Your task to perform on an android device: Add "corsair k70" to the cart on ebay.com, then select checkout. Image 0: 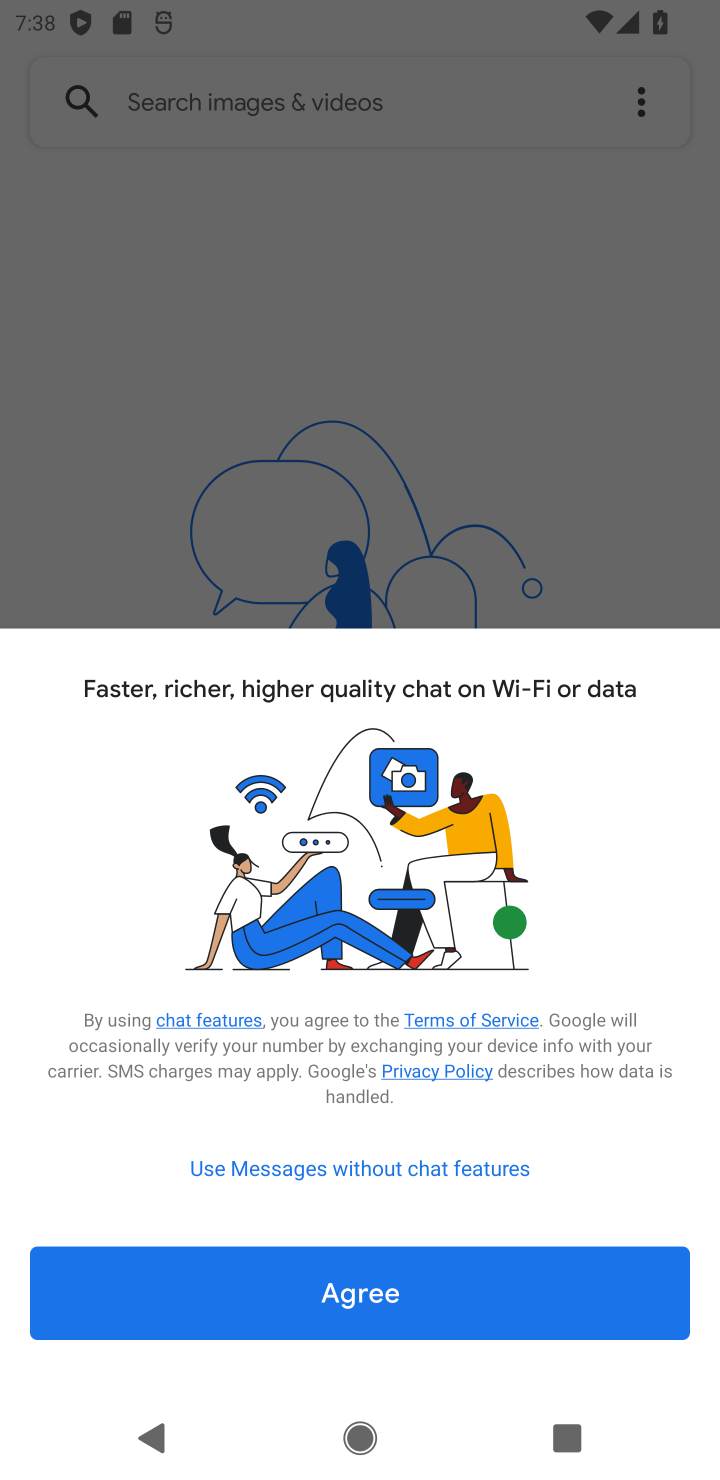
Step 0: press home button
Your task to perform on an android device: Add "corsair k70" to the cart on ebay.com, then select checkout. Image 1: 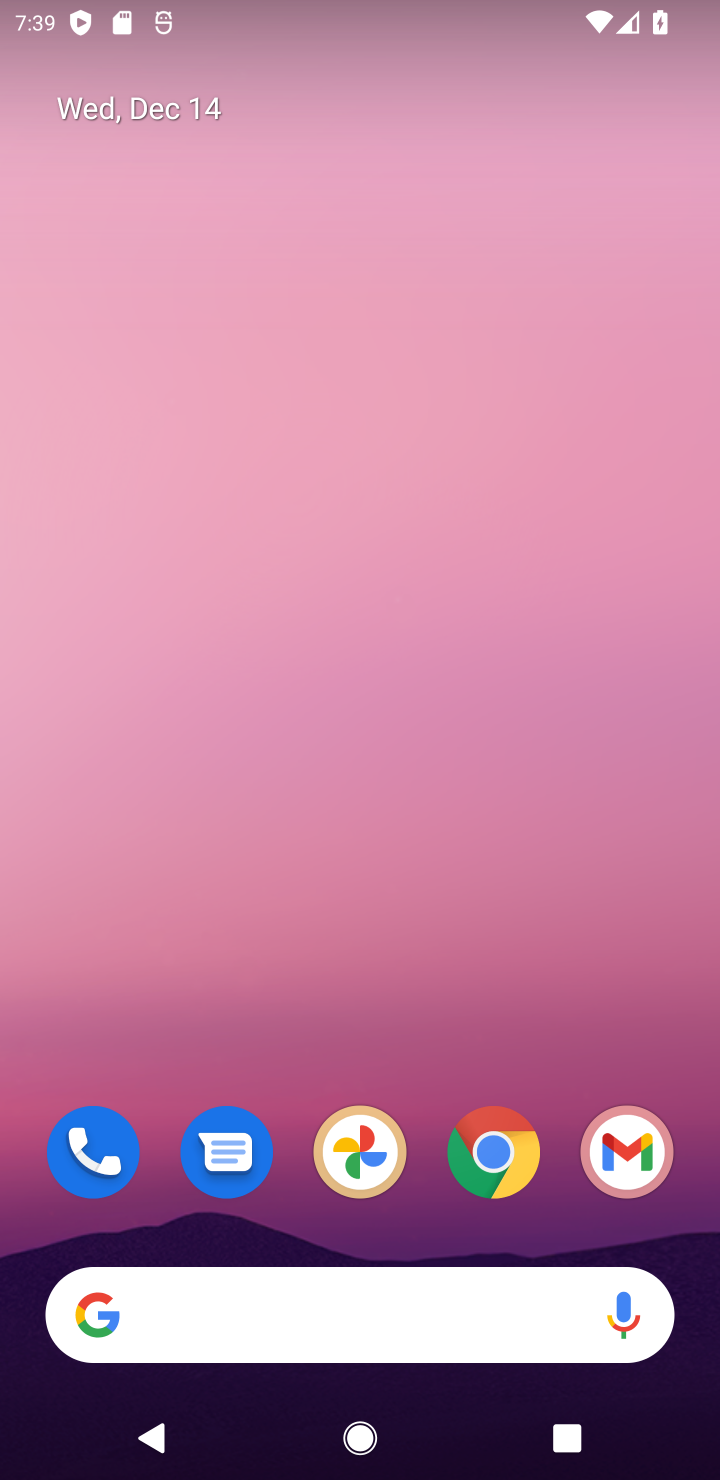
Step 1: click (489, 1164)
Your task to perform on an android device: Add "corsair k70" to the cart on ebay.com, then select checkout. Image 2: 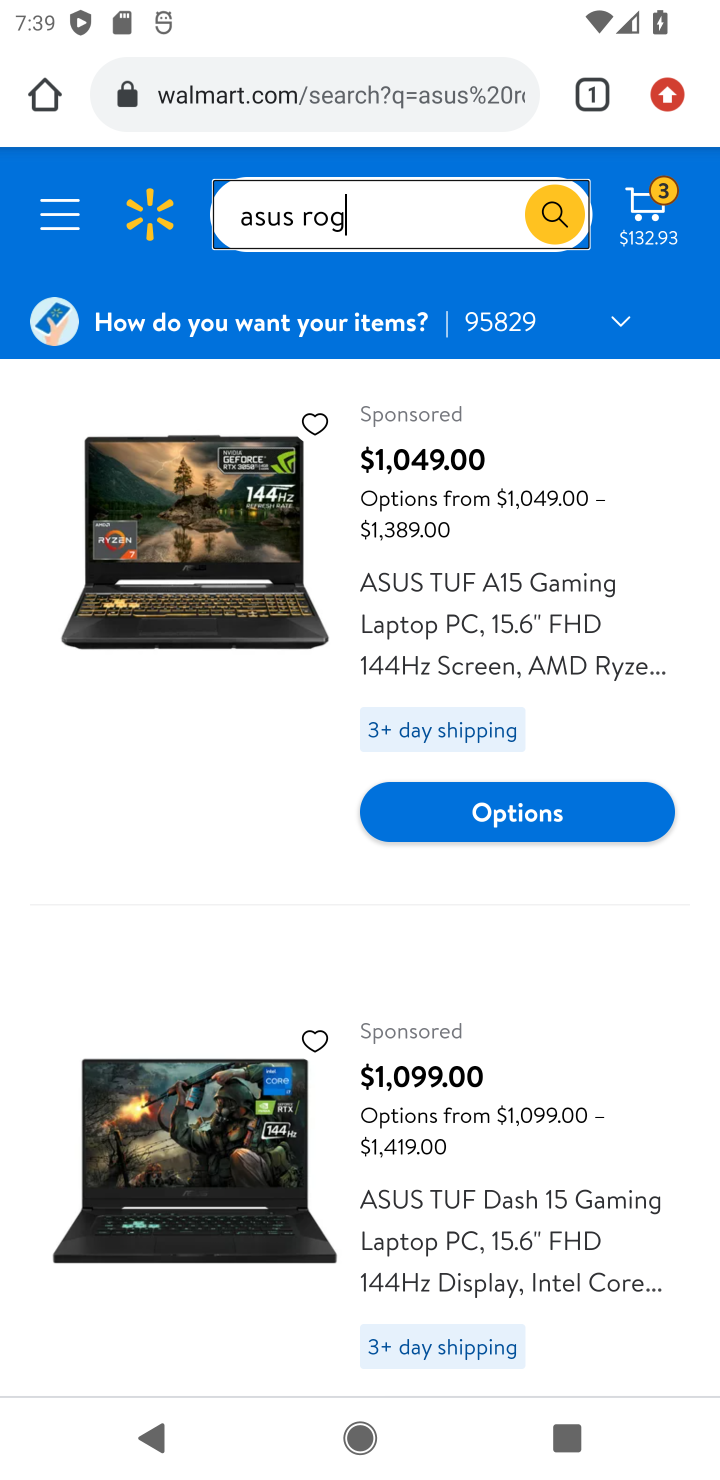
Step 2: click (244, 103)
Your task to perform on an android device: Add "corsair k70" to the cart on ebay.com, then select checkout. Image 3: 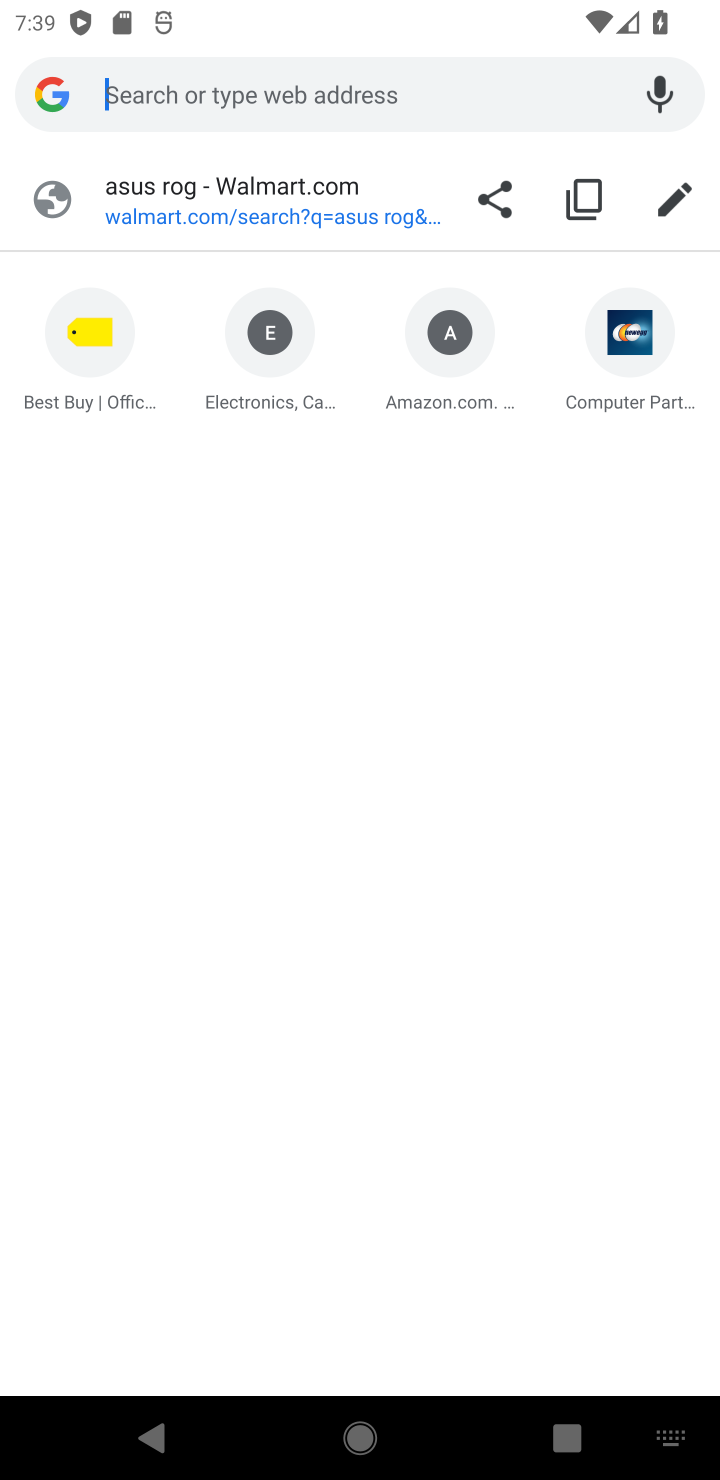
Step 3: type "ebay.com"
Your task to perform on an android device: Add "corsair k70" to the cart on ebay.com, then select checkout. Image 4: 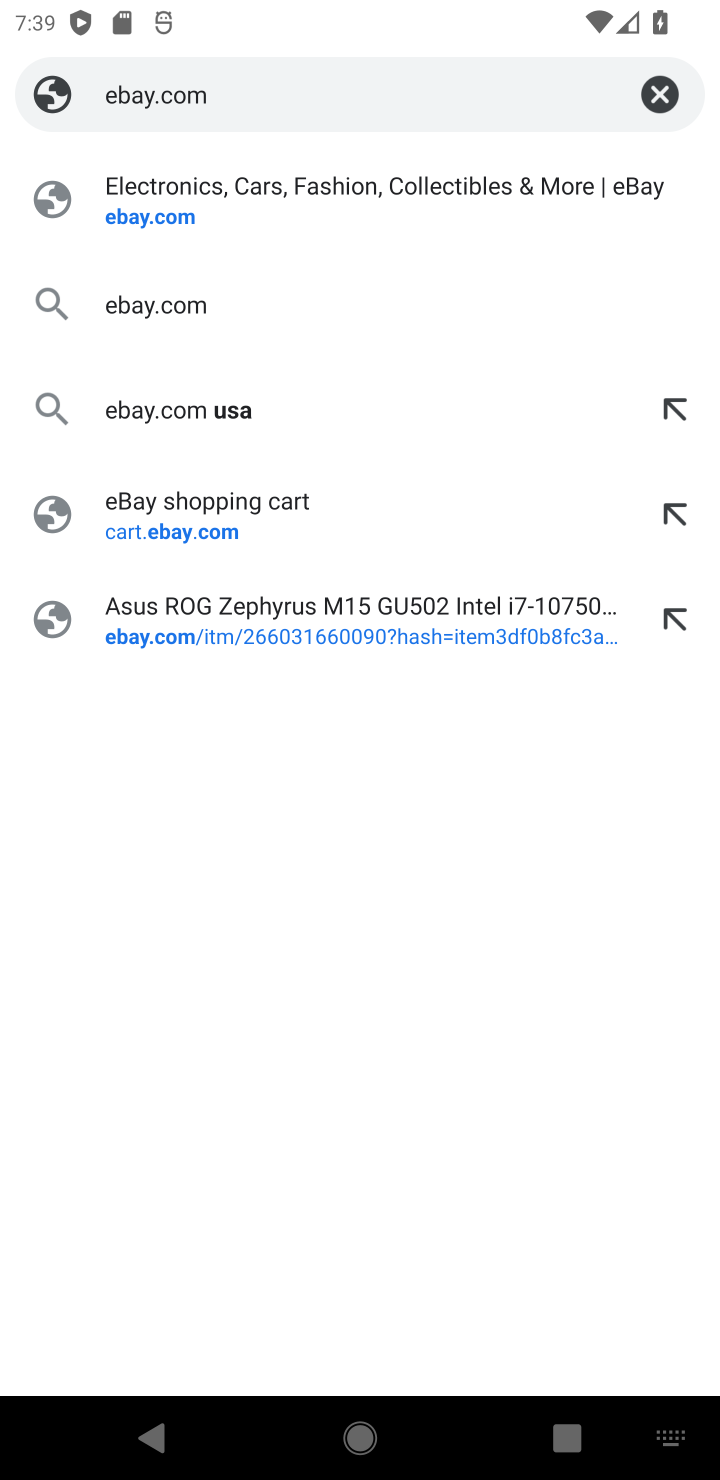
Step 4: click (144, 211)
Your task to perform on an android device: Add "corsair k70" to the cart on ebay.com, then select checkout. Image 5: 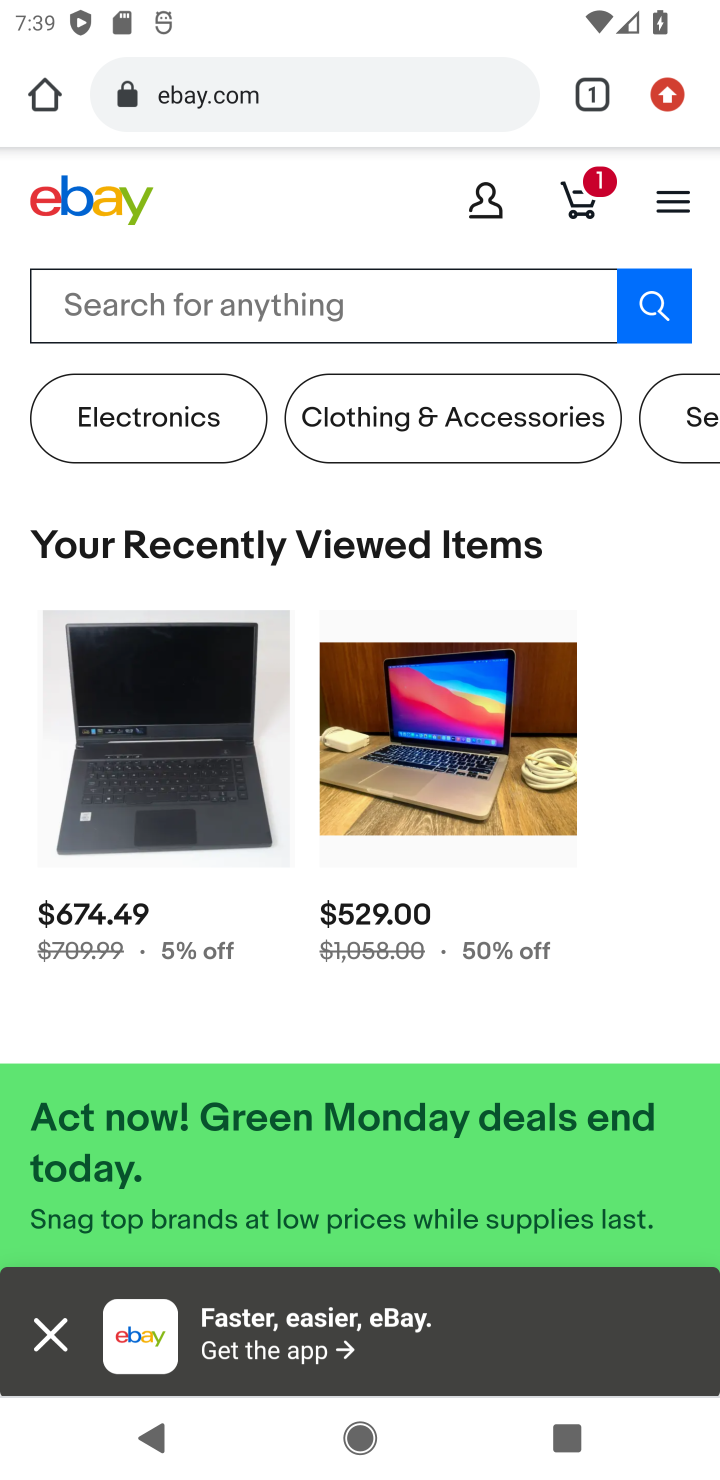
Step 5: click (155, 316)
Your task to perform on an android device: Add "corsair k70" to the cart on ebay.com, then select checkout. Image 6: 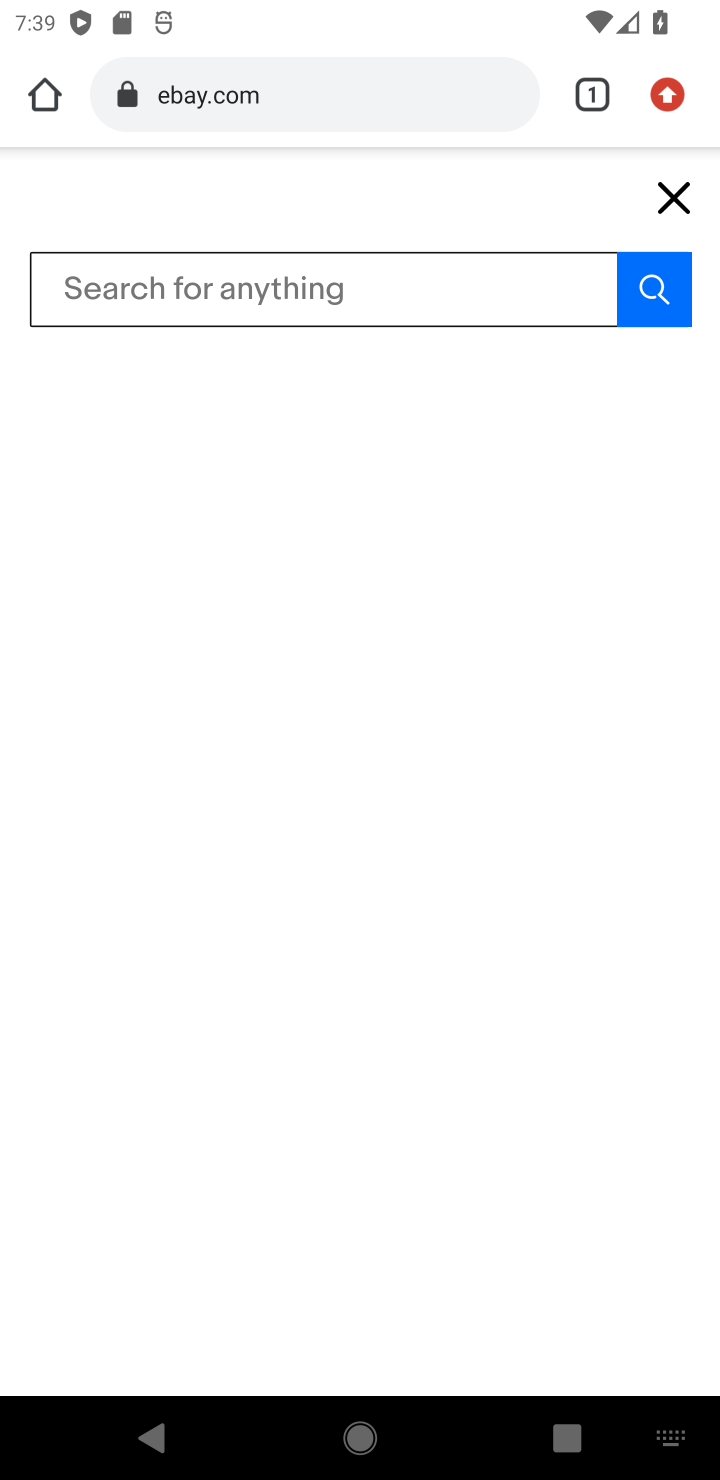
Step 6: type "corsair k70"
Your task to perform on an android device: Add "corsair k70" to the cart on ebay.com, then select checkout. Image 7: 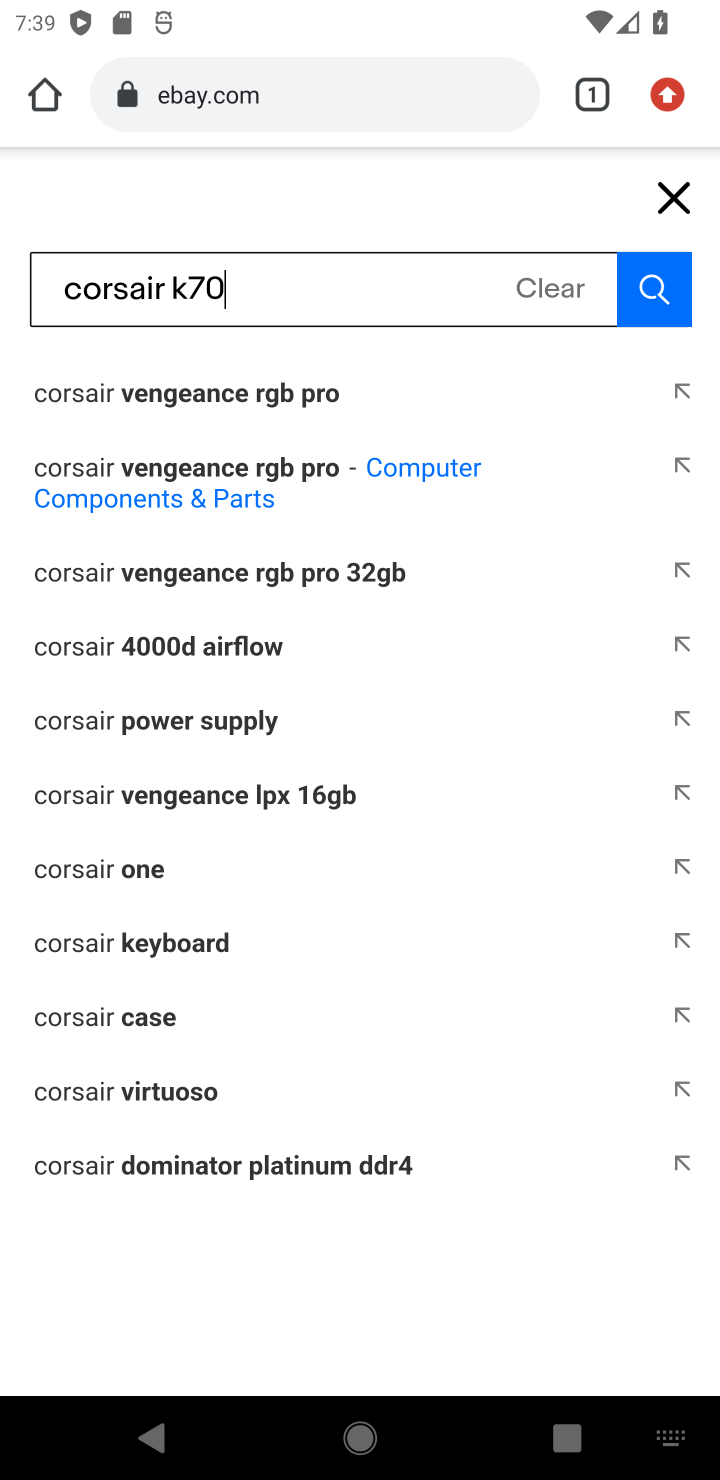
Step 7: click (652, 290)
Your task to perform on an android device: Add "corsair k70" to the cart on ebay.com, then select checkout. Image 8: 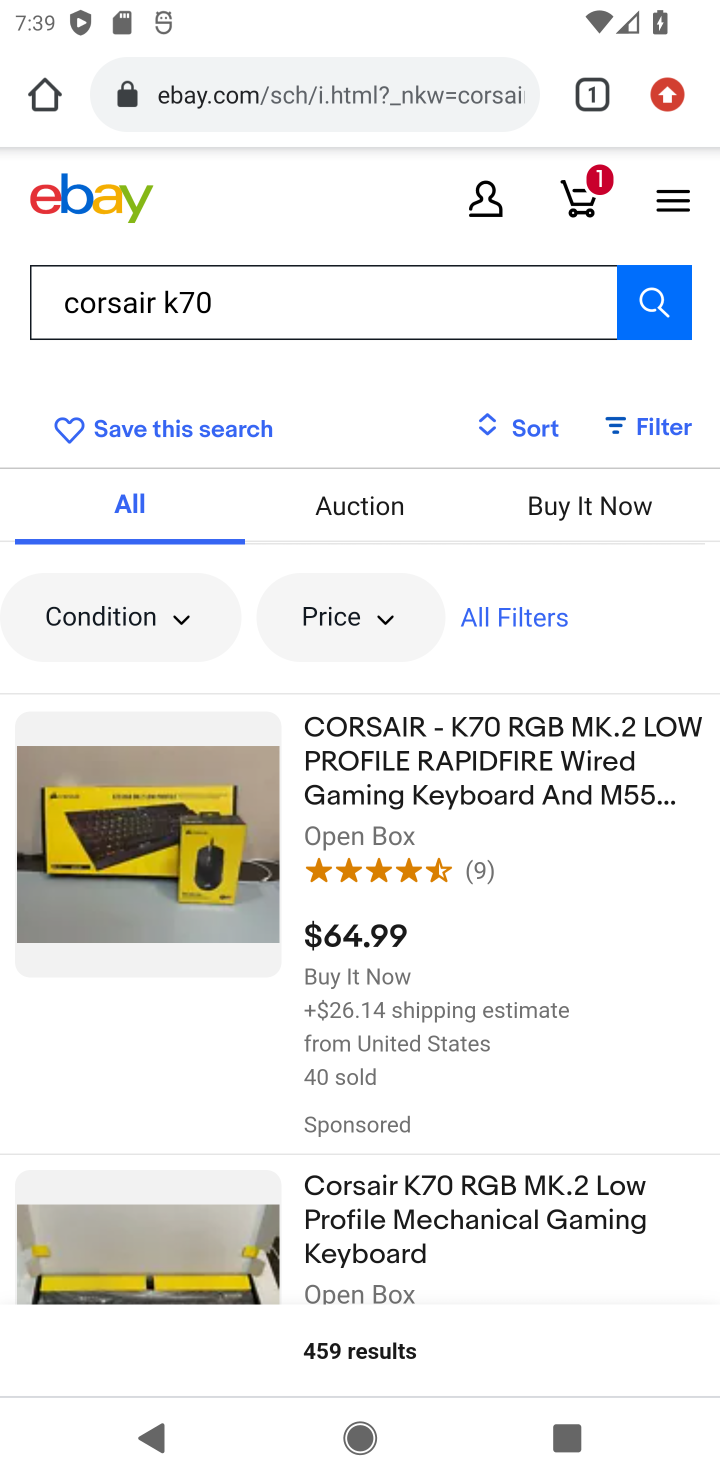
Step 8: click (428, 787)
Your task to perform on an android device: Add "corsair k70" to the cart on ebay.com, then select checkout. Image 9: 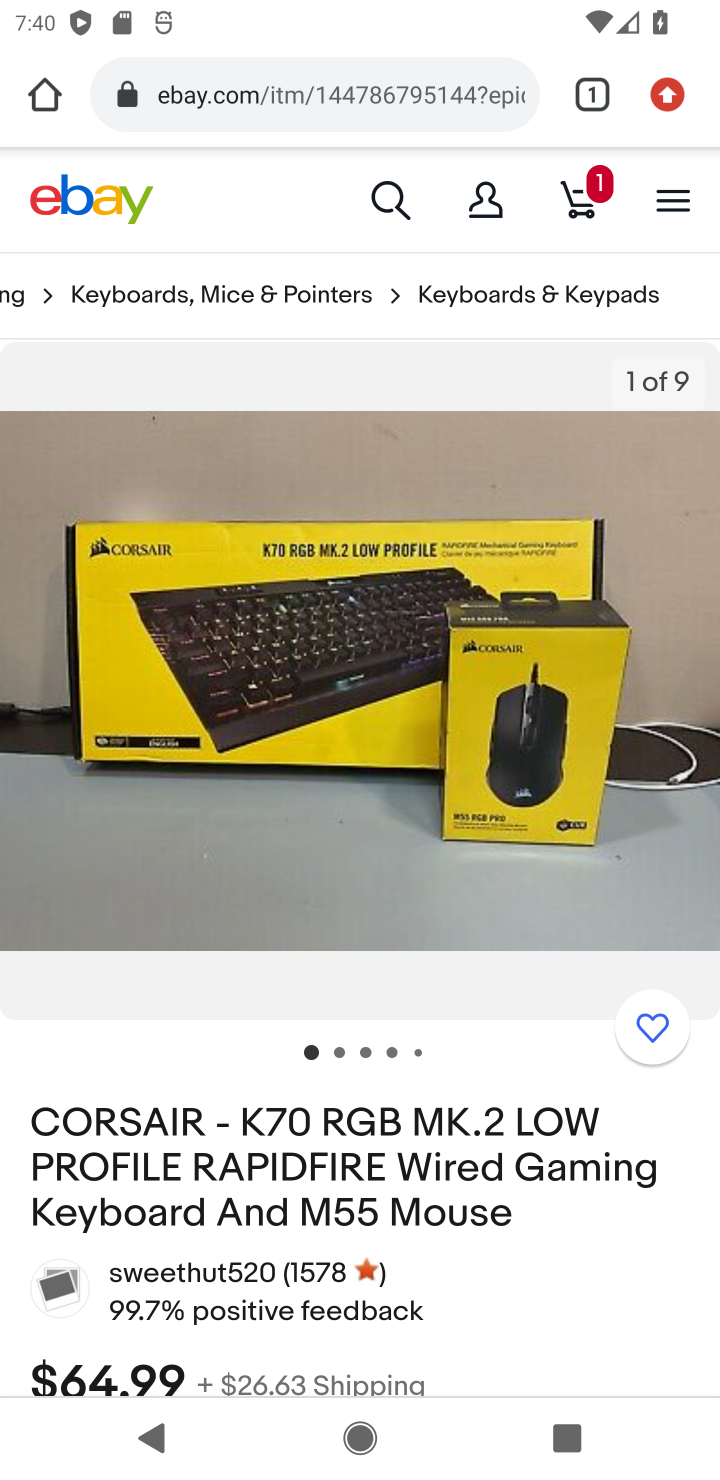
Step 9: drag from (342, 1125) to (361, 543)
Your task to perform on an android device: Add "corsair k70" to the cart on ebay.com, then select checkout. Image 10: 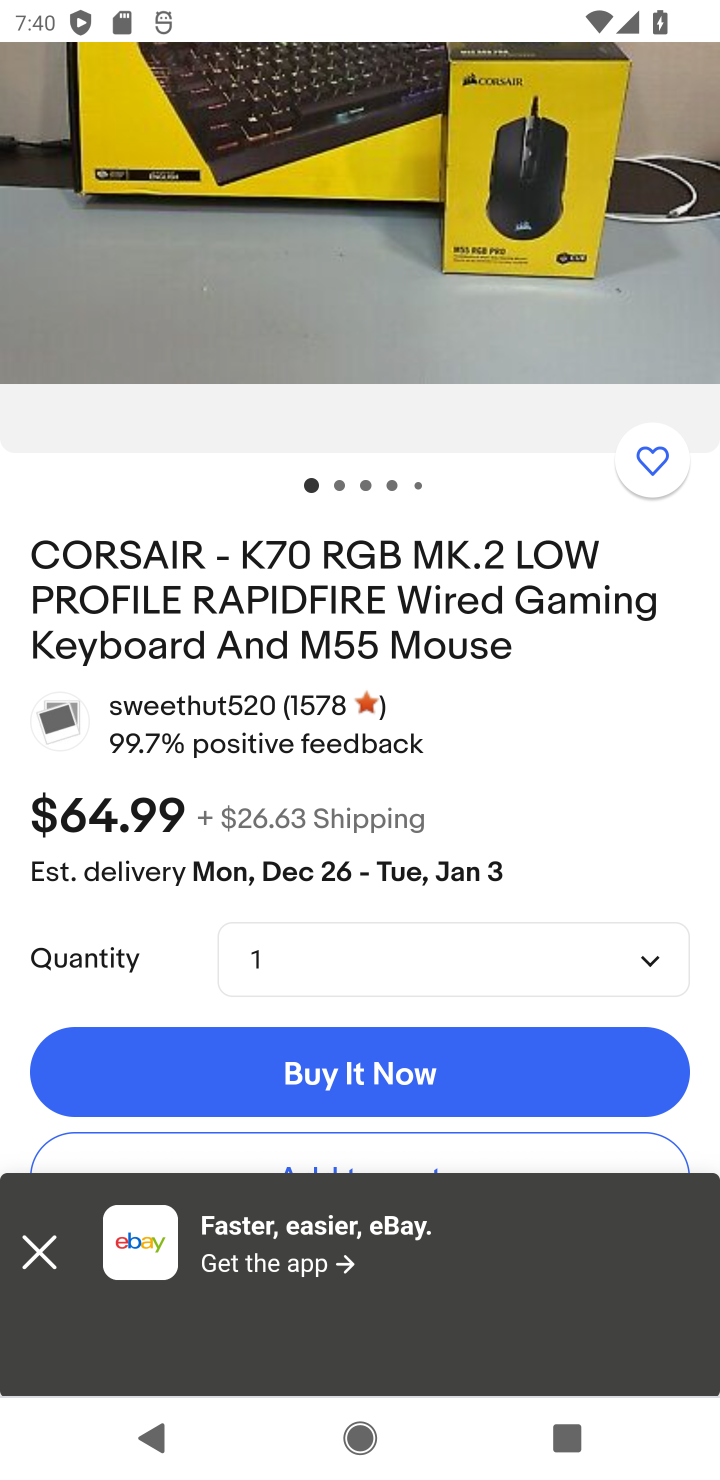
Step 10: click (41, 1254)
Your task to perform on an android device: Add "corsair k70" to the cart on ebay.com, then select checkout. Image 11: 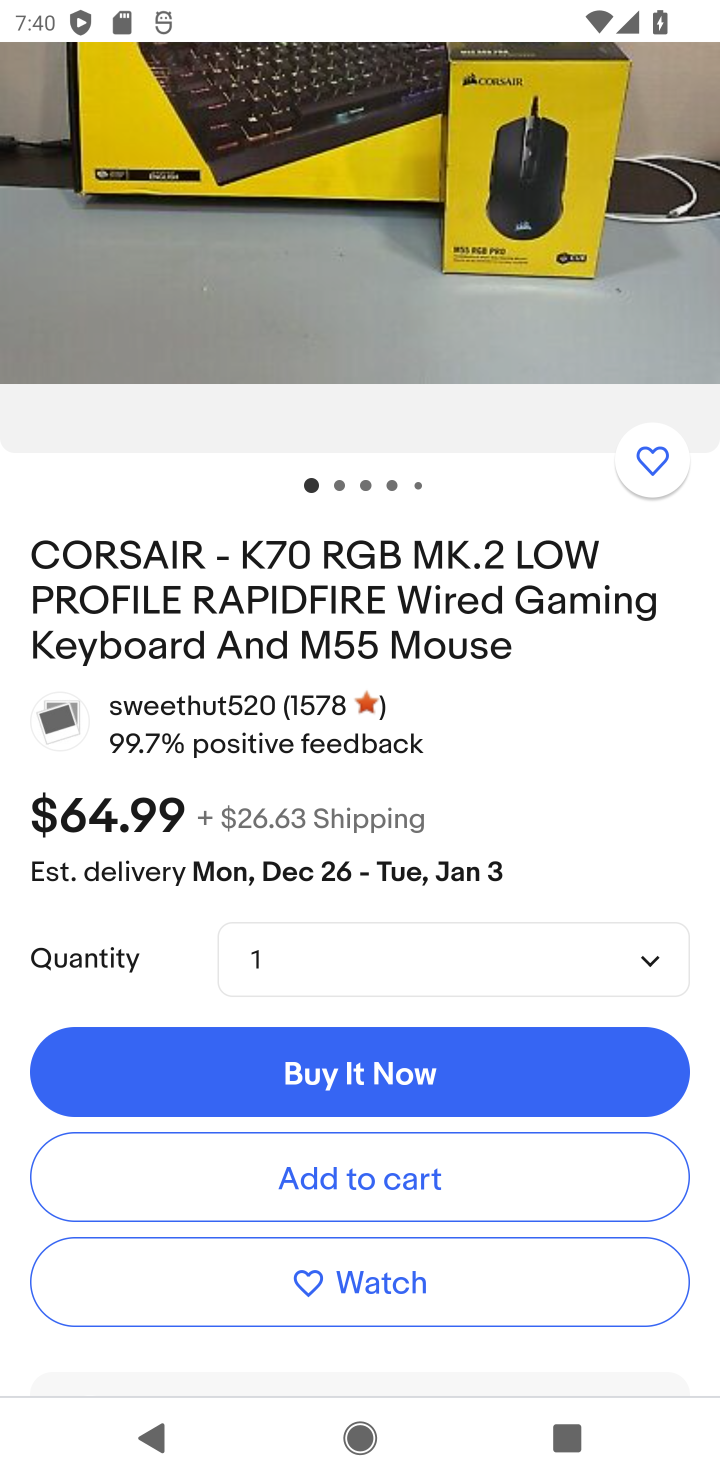
Step 11: click (416, 1189)
Your task to perform on an android device: Add "corsair k70" to the cart on ebay.com, then select checkout. Image 12: 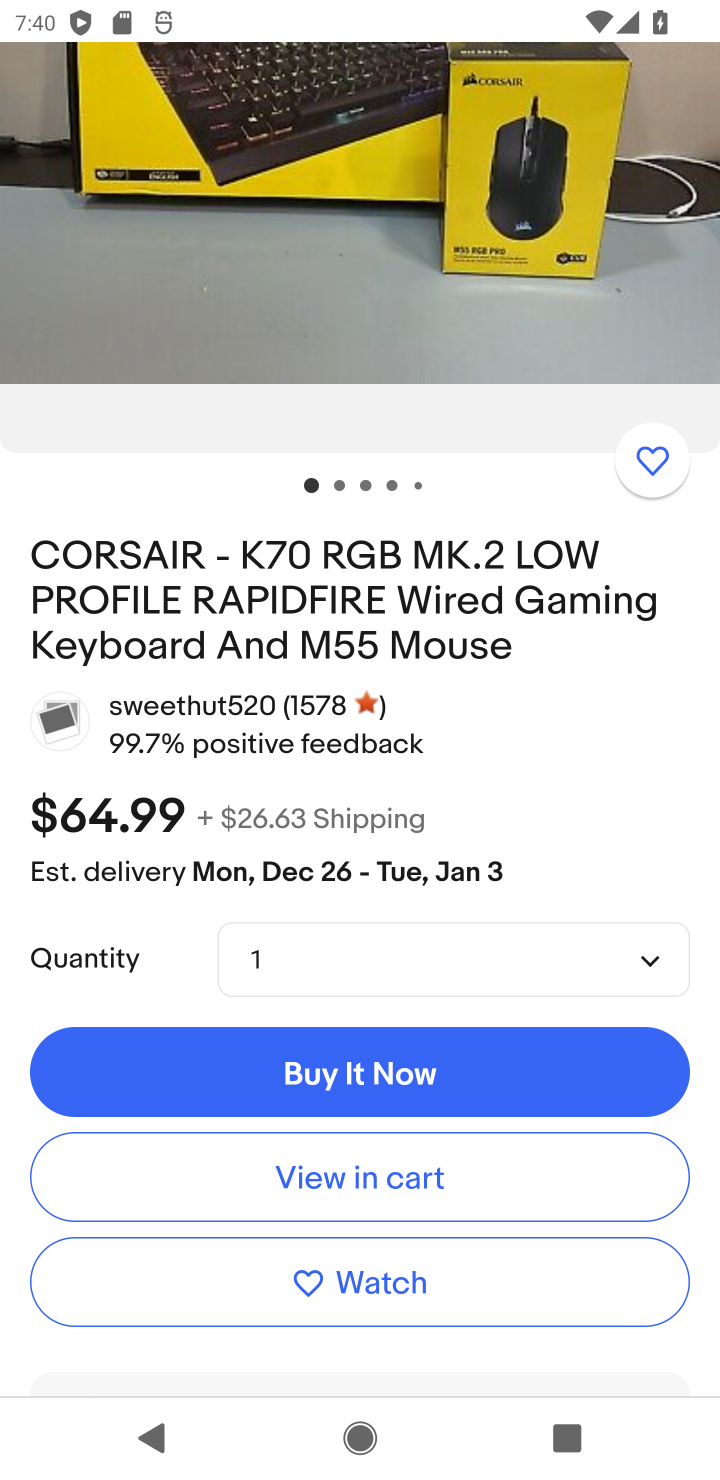
Step 12: click (416, 1189)
Your task to perform on an android device: Add "corsair k70" to the cart on ebay.com, then select checkout. Image 13: 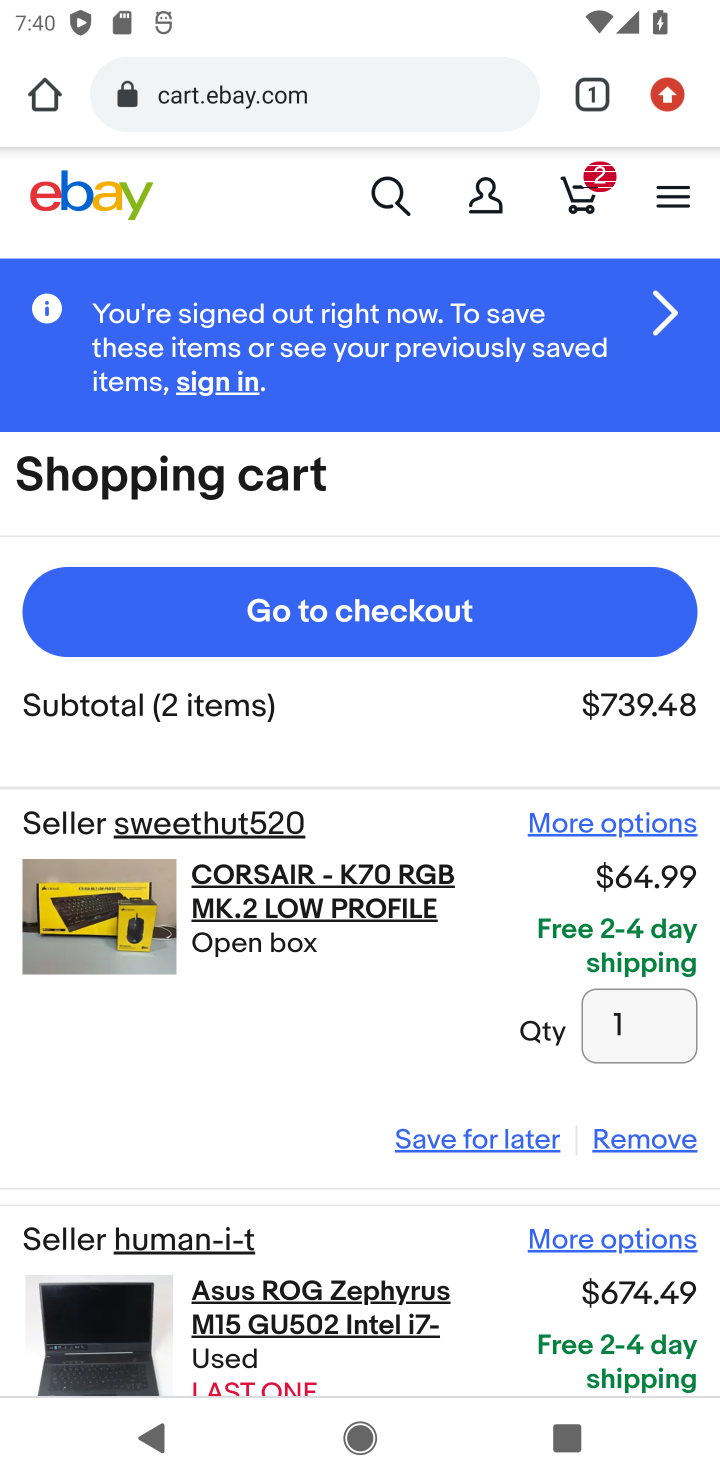
Step 13: click (300, 583)
Your task to perform on an android device: Add "corsair k70" to the cart on ebay.com, then select checkout. Image 14: 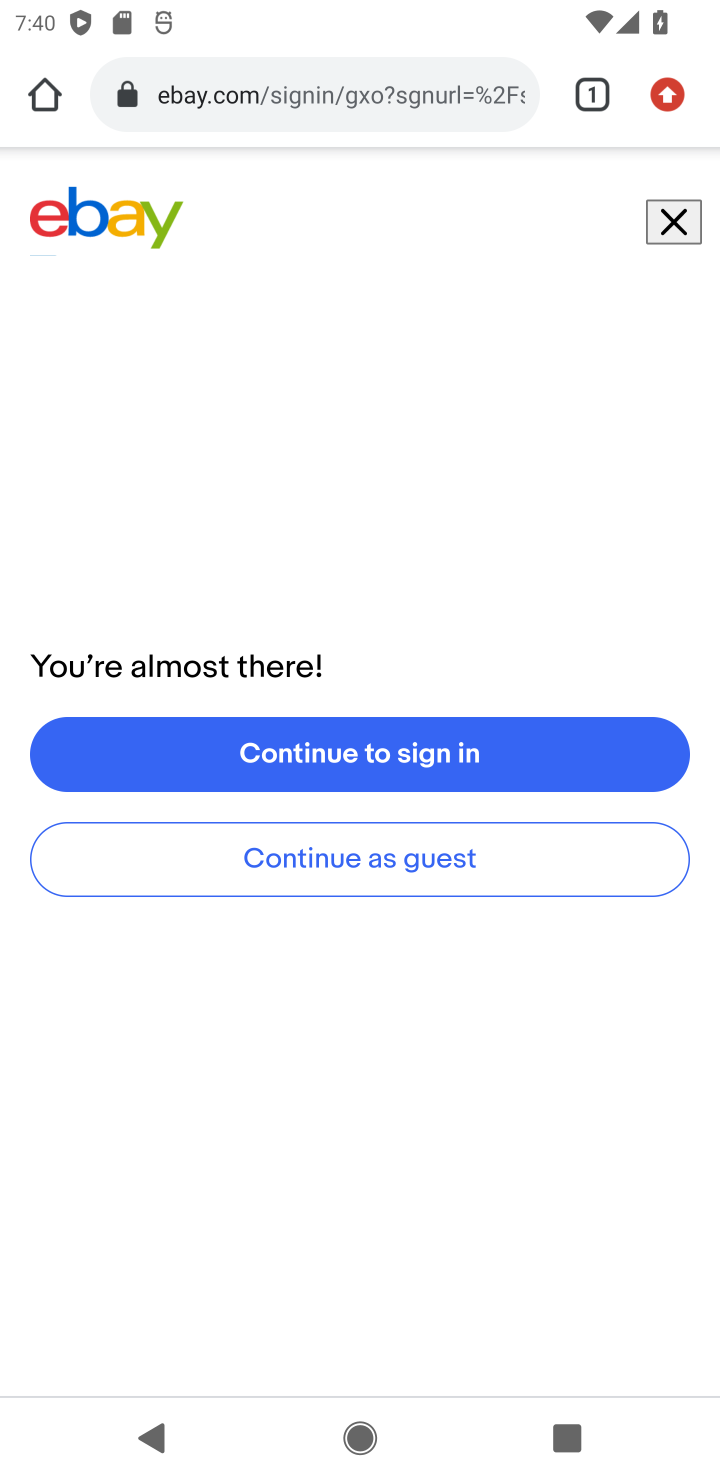
Step 14: task complete